Your task to perform on an android device: manage bookmarks in the chrome app Image 0: 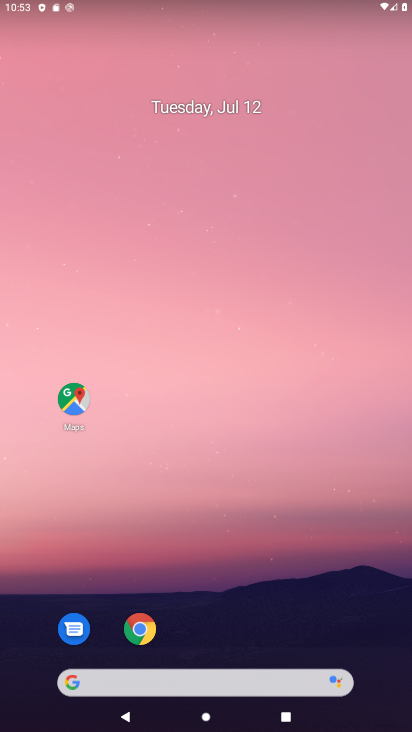
Step 0: click (140, 636)
Your task to perform on an android device: manage bookmarks in the chrome app Image 1: 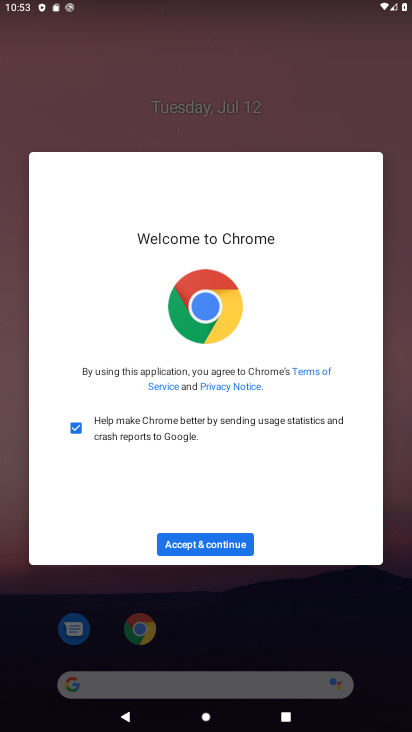
Step 1: click (193, 540)
Your task to perform on an android device: manage bookmarks in the chrome app Image 2: 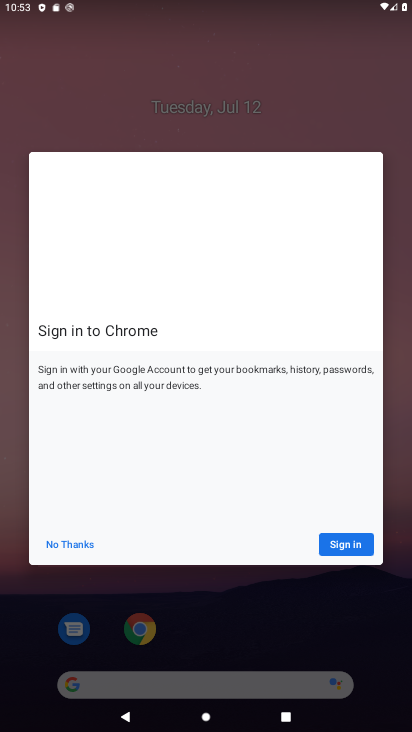
Step 2: click (339, 552)
Your task to perform on an android device: manage bookmarks in the chrome app Image 3: 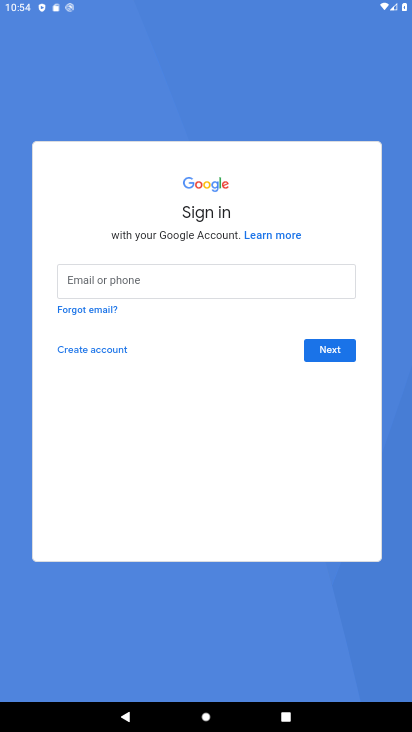
Step 3: task complete